Your task to perform on an android device: Open Google Maps Image 0: 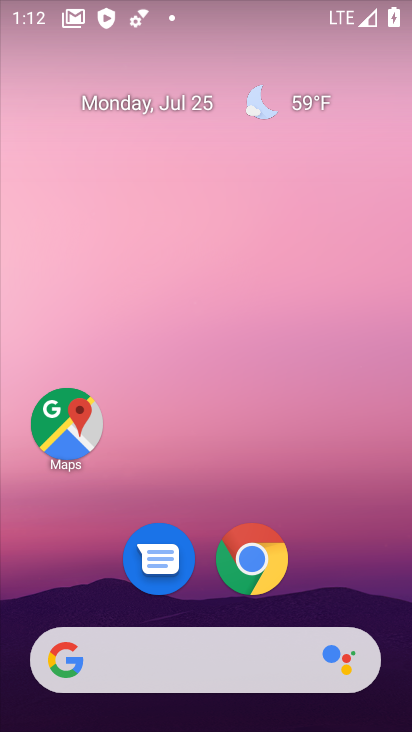
Step 0: click (68, 419)
Your task to perform on an android device: Open Google Maps Image 1: 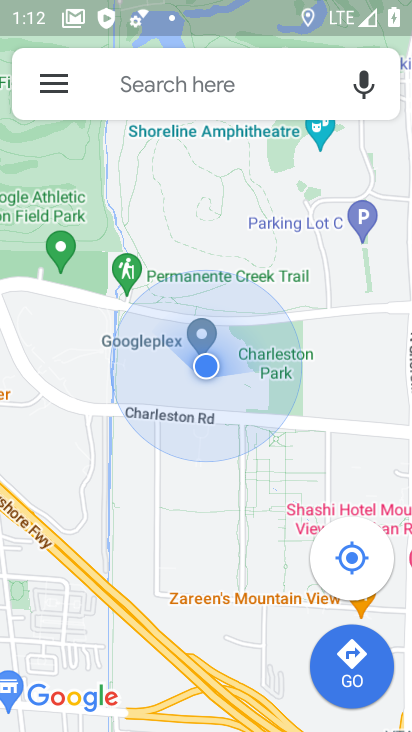
Step 1: task complete